Your task to perform on an android device: Open the map Image 0: 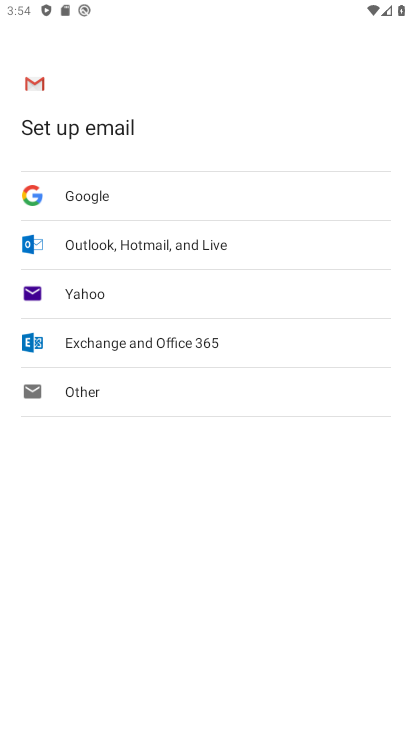
Step 0: press home button
Your task to perform on an android device: Open the map Image 1: 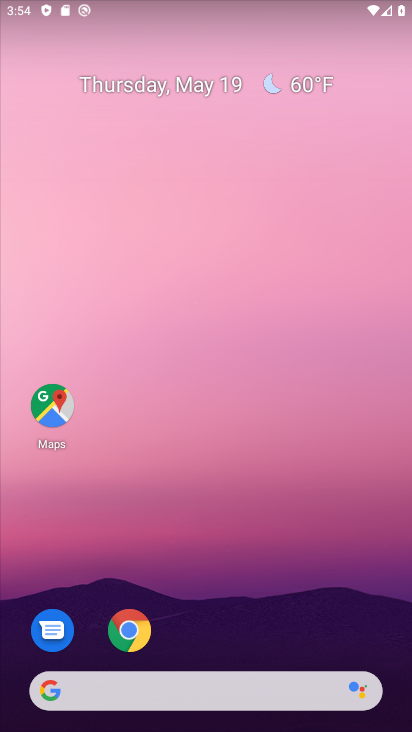
Step 1: drag from (213, 652) to (213, 219)
Your task to perform on an android device: Open the map Image 2: 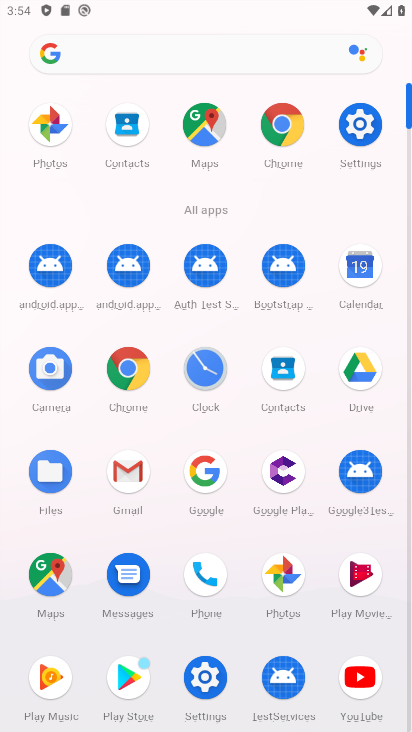
Step 2: click (47, 573)
Your task to perform on an android device: Open the map Image 3: 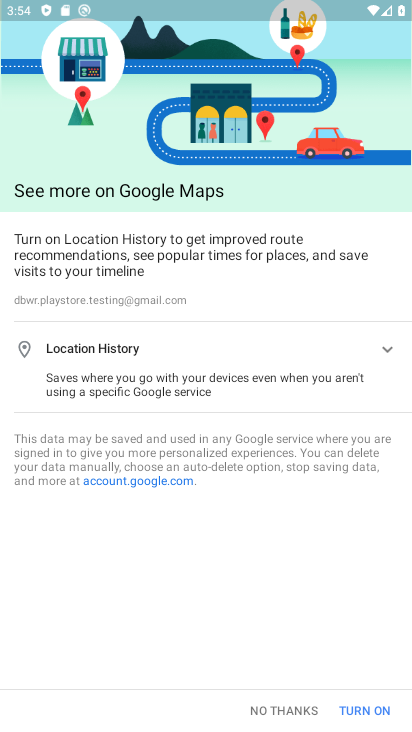
Step 3: click (282, 710)
Your task to perform on an android device: Open the map Image 4: 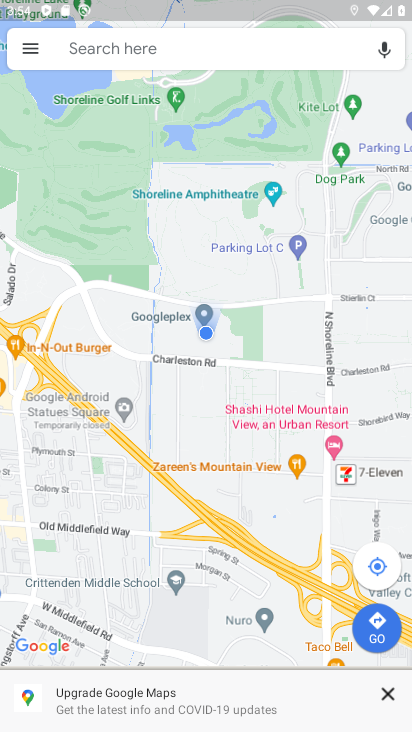
Step 4: task complete